Your task to perform on an android device: open a bookmark in the chrome app Image 0: 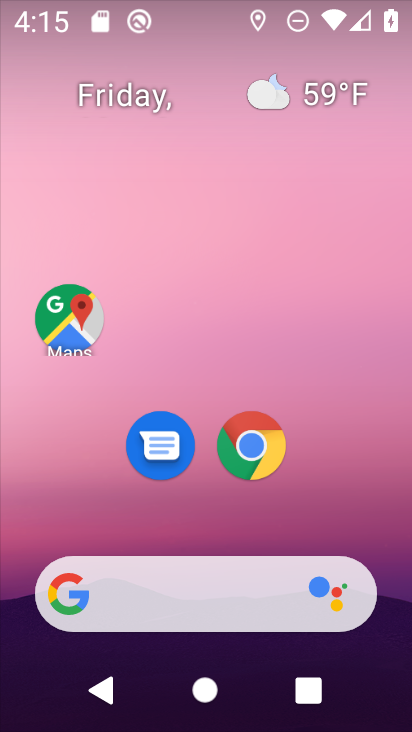
Step 0: click (250, 446)
Your task to perform on an android device: open a bookmark in the chrome app Image 1: 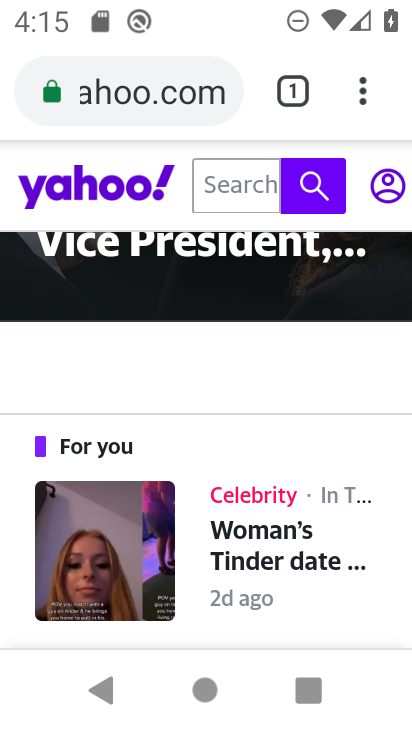
Step 1: click (361, 95)
Your task to perform on an android device: open a bookmark in the chrome app Image 2: 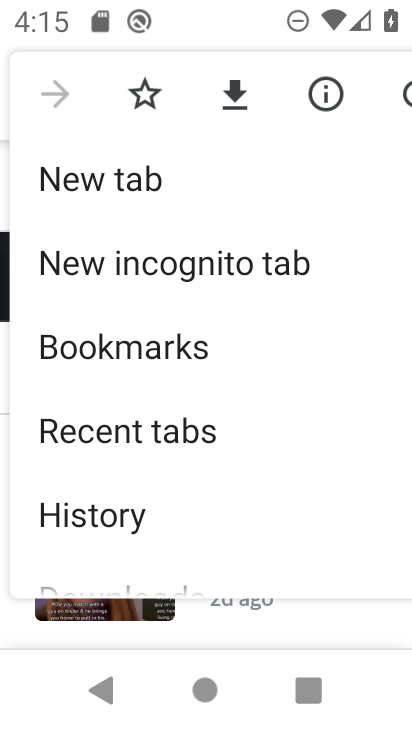
Step 2: click (107, 347)
Your task to perform on an android device: open a bookmark in the chrome app Image 3: 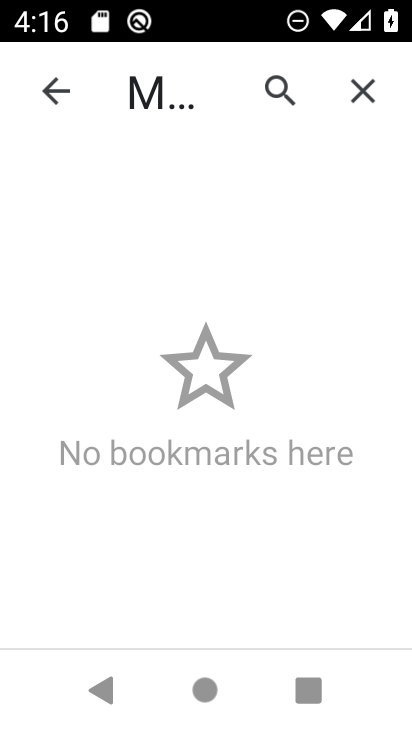
Step 3: click (357, 91)
Your task to perform on an android device: open a bookmark in the chrome app Image 4: 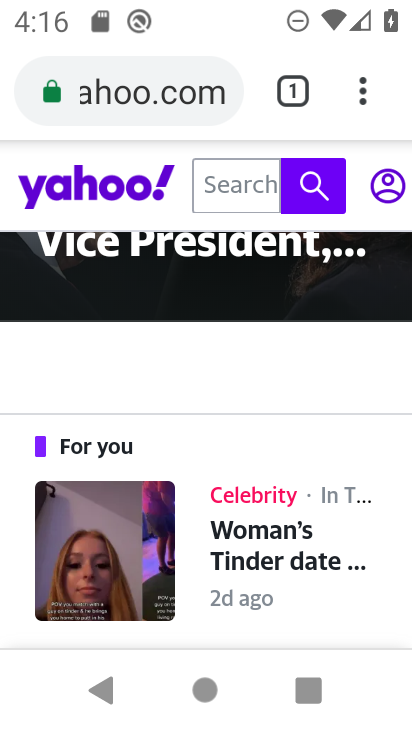
Step 4: task complete